Your task to perform on an android device: Open Android settings Image 0: 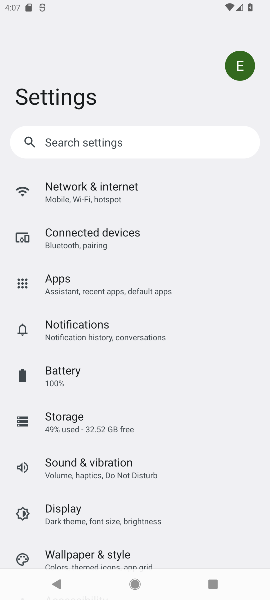
Step 0: drag from (192, 497) to (210, 137)
Your task to perform on an android device: Open Android settings Image 1: 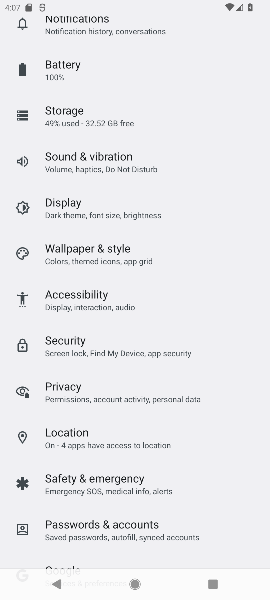
Step 1: task complete